Your task to perform on an android device: clear all cookies in the chrome app Image 0: 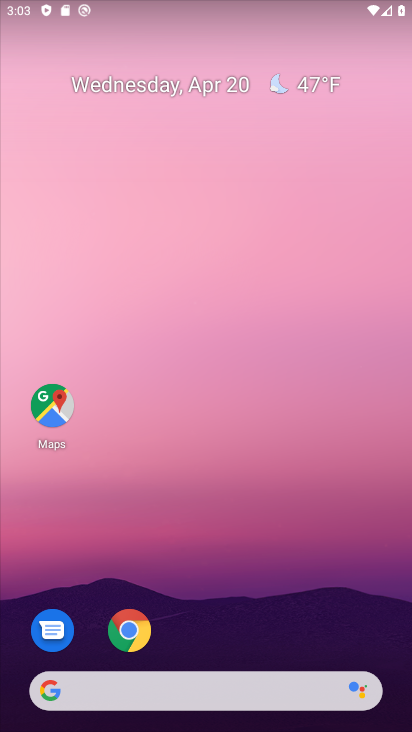
Step 0: drag from (264, 602) to (285, 226)
Your task to perform on an android device: clear all cookies in the chrome app Image 1: 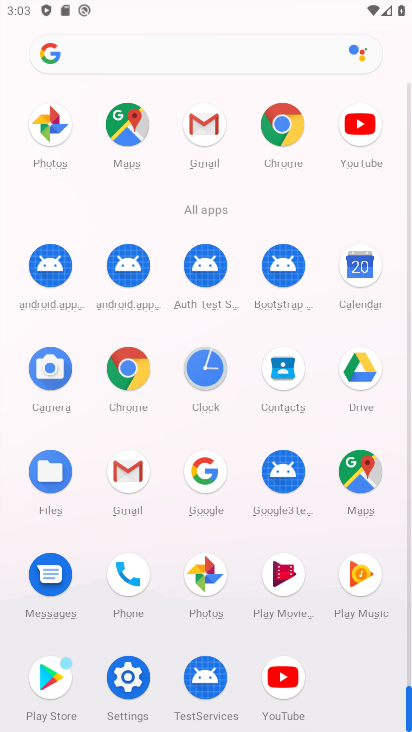
Step 1: click (135, 677)
Your task to perform on an android device: clear all cookies in the chrome app Image 2: 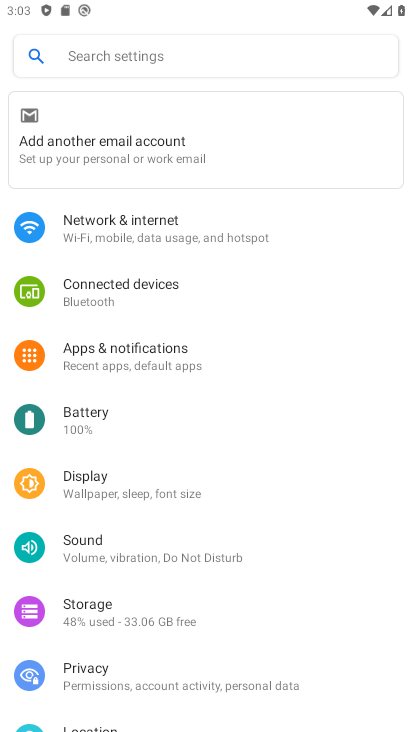
Step 2: press home button
Your task to perform on an android device: clear all cookies in the chrome app Image 3: 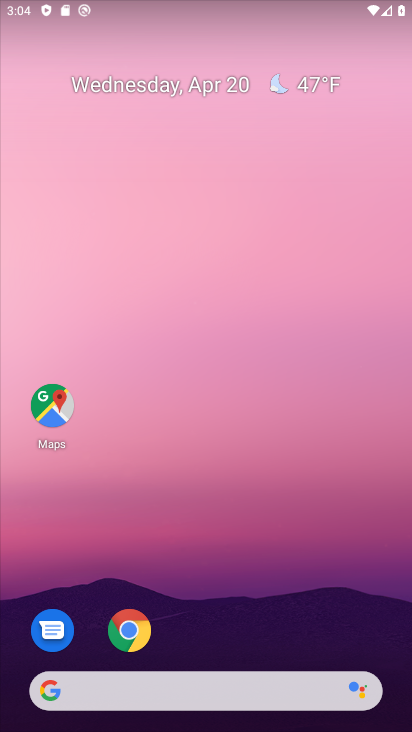
Step 3: drag from (228, 621) to (349, 190)
Your task to perform on an android device: clear all cookies in the chrome app Image 4: 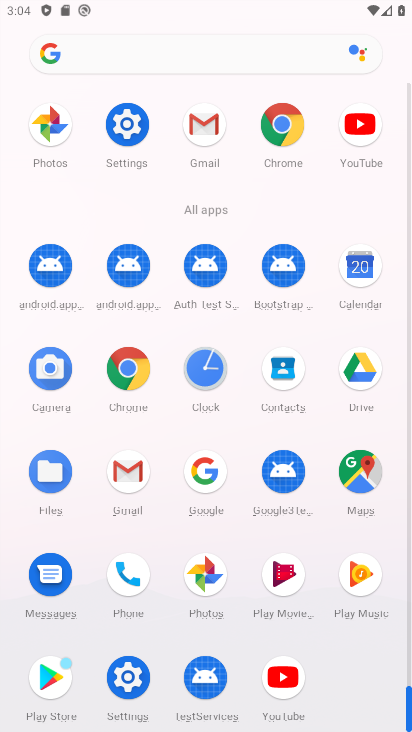
Step 4: click (284, 112)
Your task to perform on an android device: clear all cookies in the chrome app Image 5: 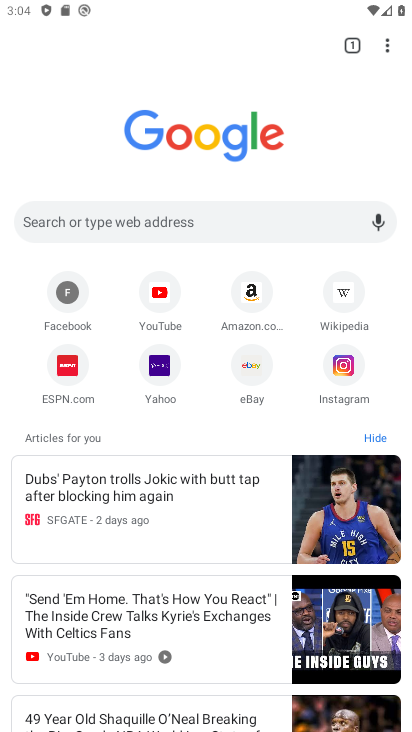
Step 5: click (386, 44)
Your task to perform on an android device: clear all cookies in the chrome app Image 6: 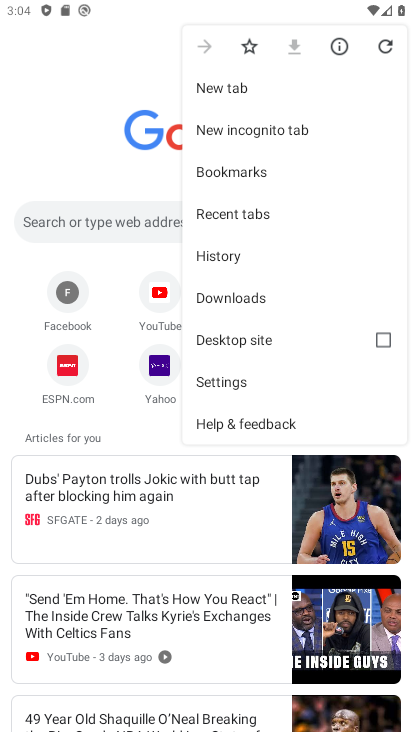
Step 6: click (237, 379)
Your task to perform on an android device: clear all cookies in the chrome app Image 7: 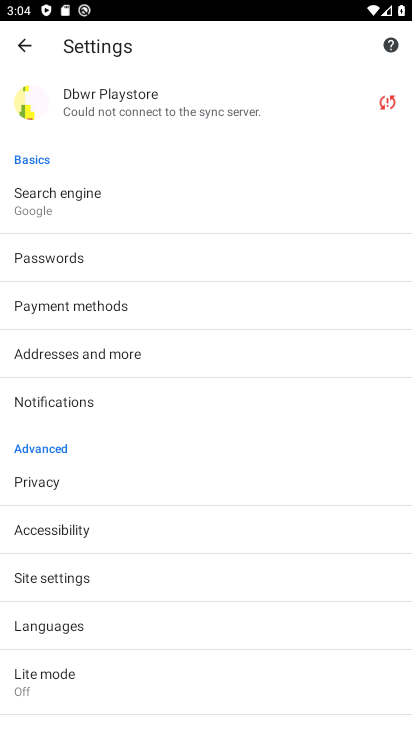
Step 7: click (80, 479)
Your task to perform on an android device: clear all cookies in the chrome app Image 8: 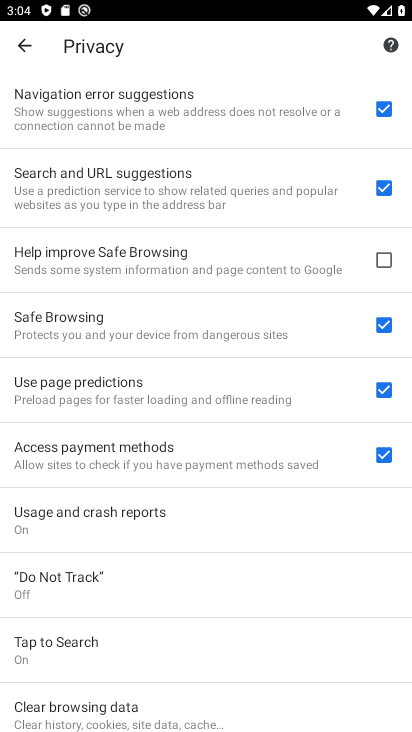
Step 8: drag from (177, 600) to (269, 204)
Your task to perform on an android device: clear all cookies in the chrome app Image 9: 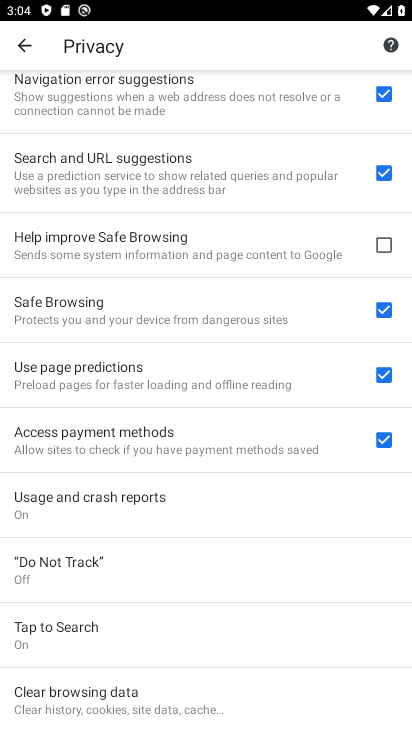
Step 9: click (124, 704)
Your task to perform on an android device: clear all cookies in the chrome app Image 10: 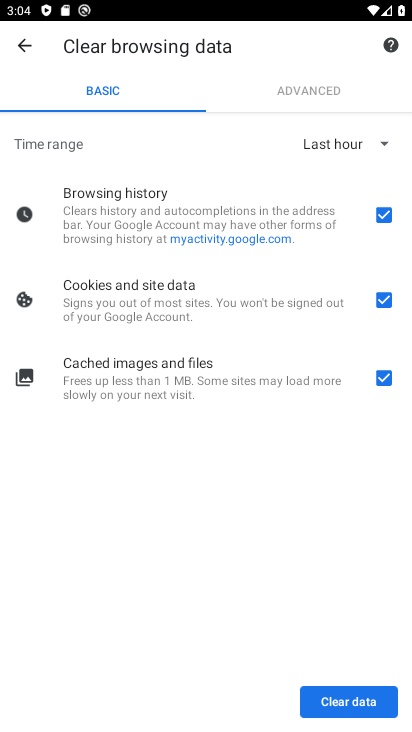
Step 10: click (339, 696)
Your task to perform on an android device: clear all cookies in the chrome app Image 11: 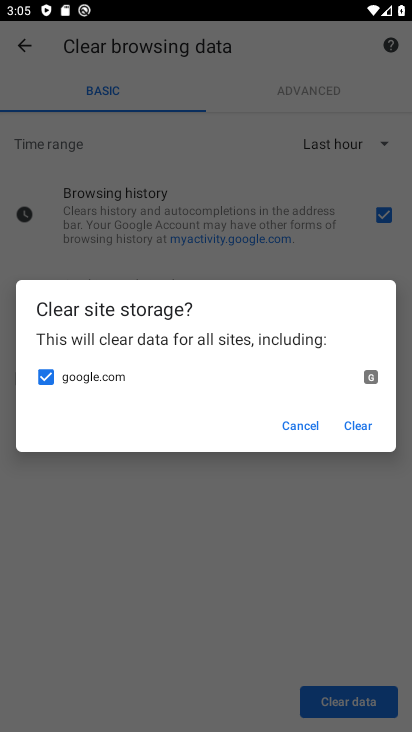
Step 11: click (344, 420)
Your task to perform on an android device: clear all cookies in the chrome app Image 12: 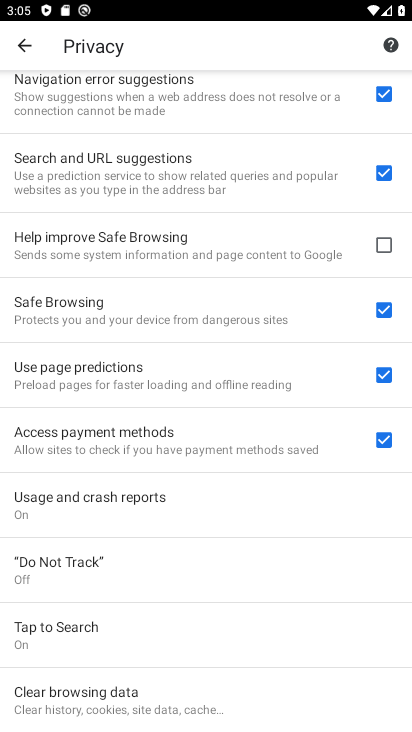
Step 12: task complete